Your task to perform on an android device: see sites visited before in the chrome app Image 0: 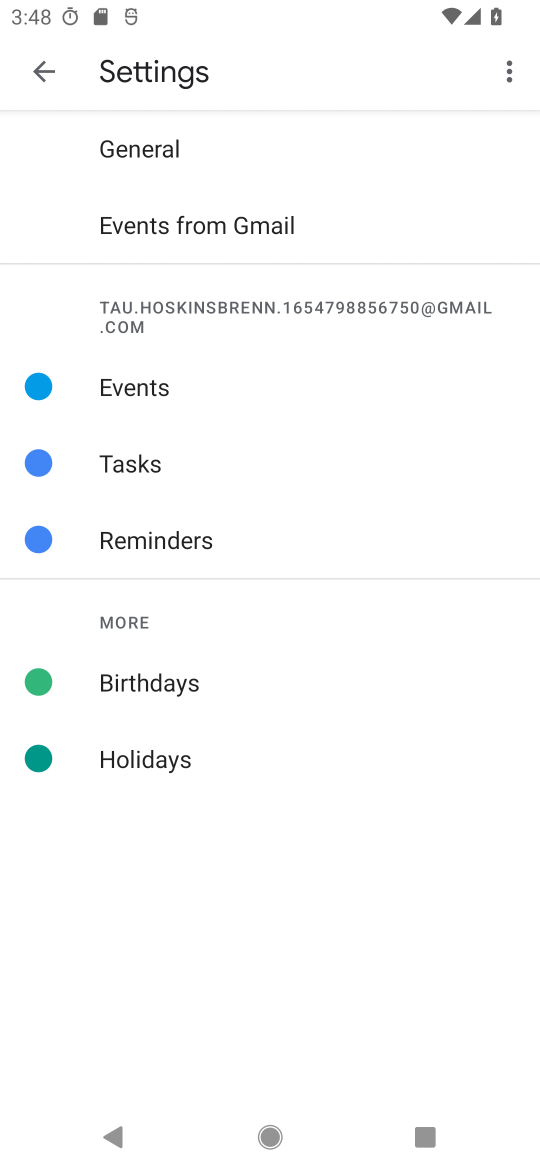
Step 0: press home button
Your task to perform on an android device: see sites visited before in the chrome app Image 1: 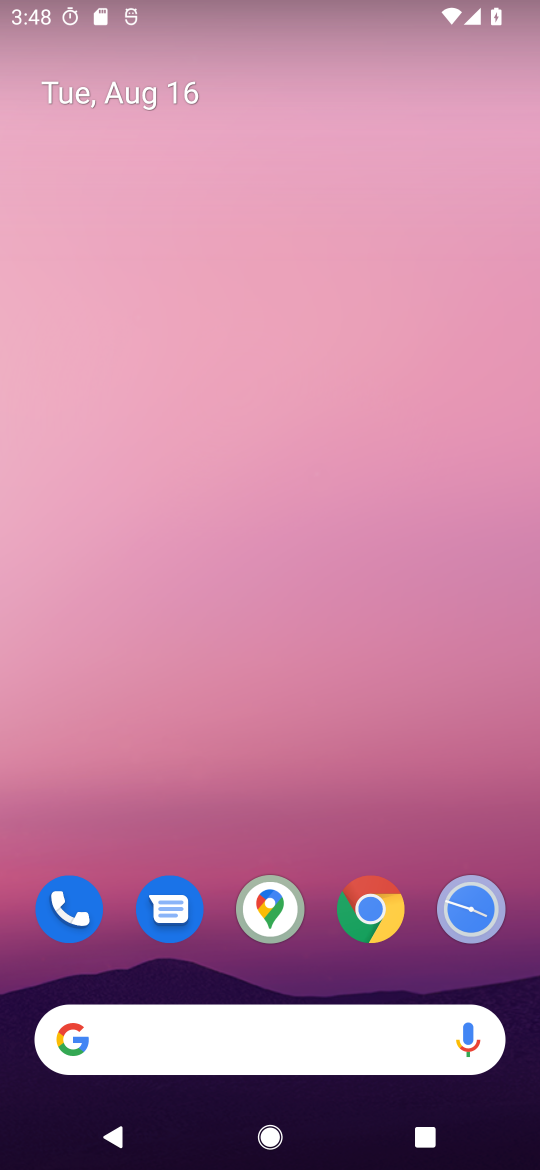
Step 1: click (392, 898)
Your task to perform on an android device: see sites visited before in the chrome app Image 2: 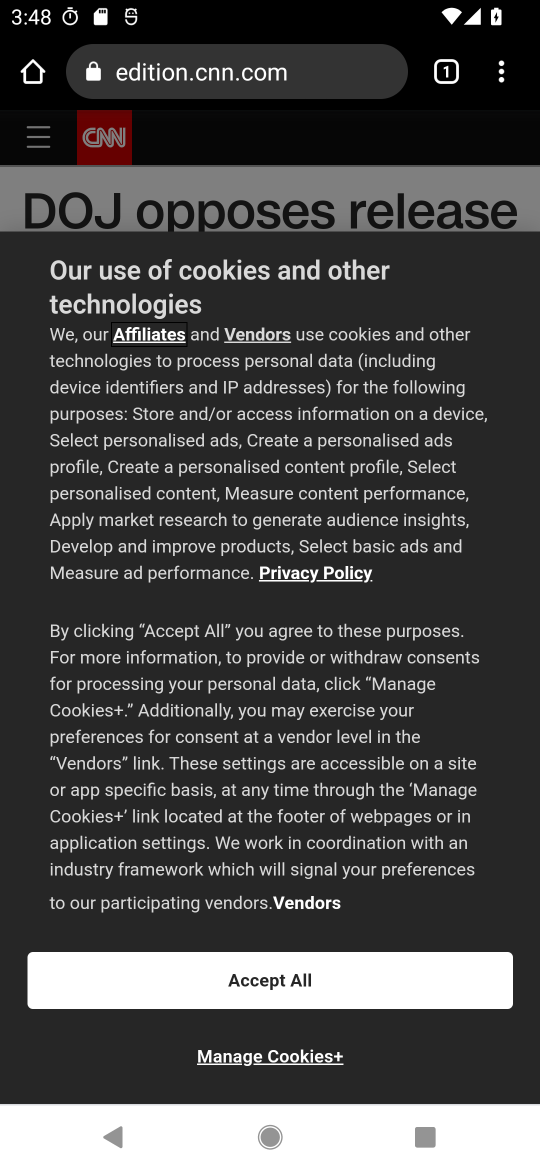
Step 2: click (503, 75)
Your task to perform on an android device: see sites visited before in the chrome app Image 3: 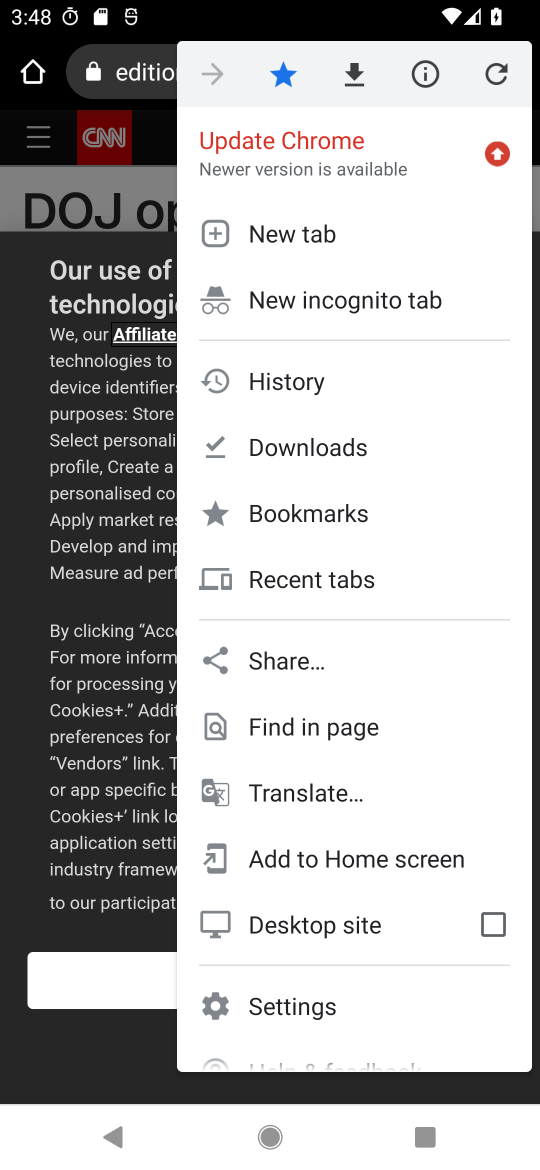
Step 3: click (286, 381)
Your task to perform on an android device: see sites visited before in the chrome app Image 4: 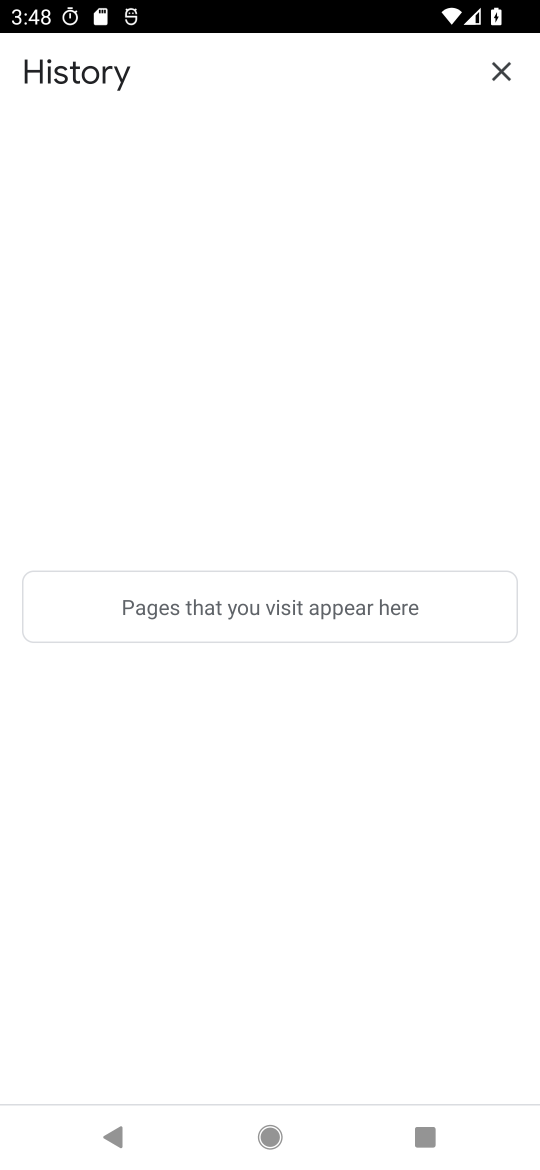
Step 4: task complete